Your task to perform on an android device: Open the map Image 0: 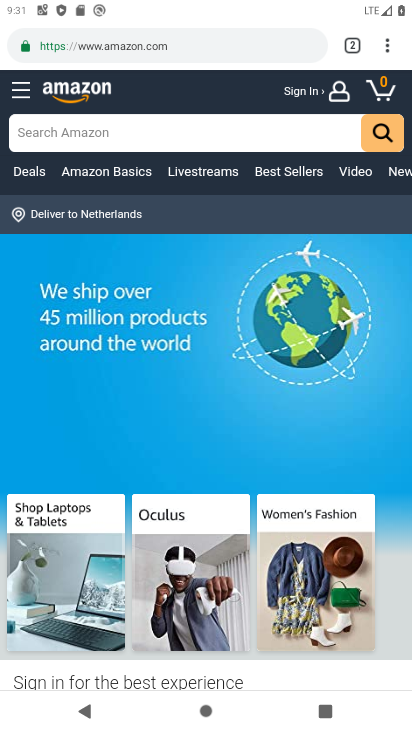
Step 0: press home button
Your task to perform on an android device: Open the map Image 1: 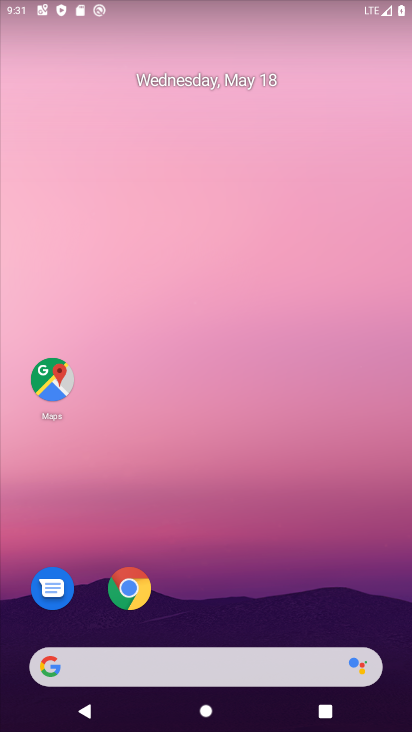
Step 1: click (45, 386)
Your task to perform on an android device: Open the map Image 2: 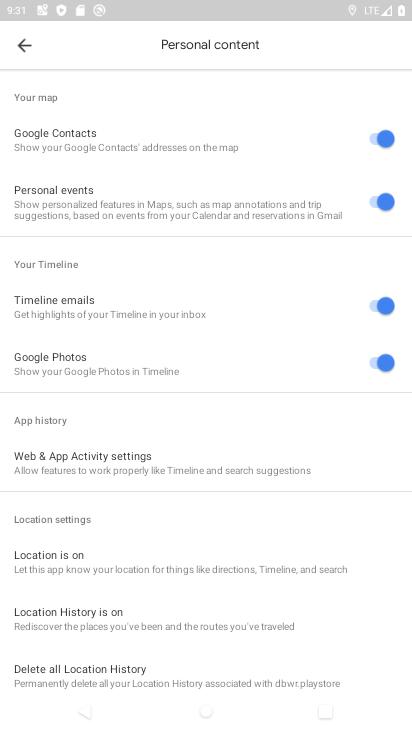
Step 2: click (22, 50)
Your task to perform on an android device: Open the map Image 3: 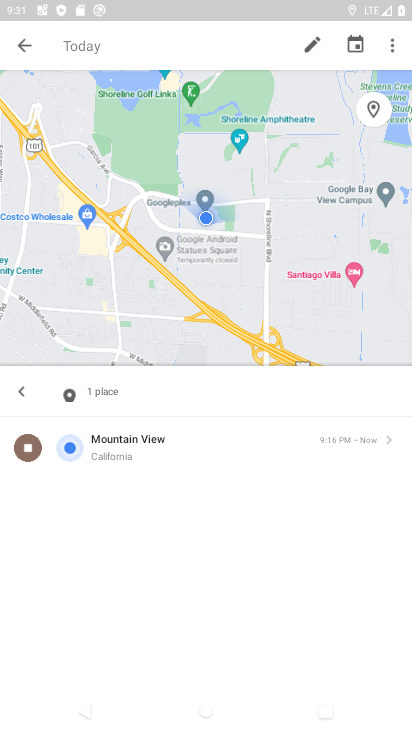
Step 3: task complete